Your task to perform on an android device: Go to privacy settings Image 0: 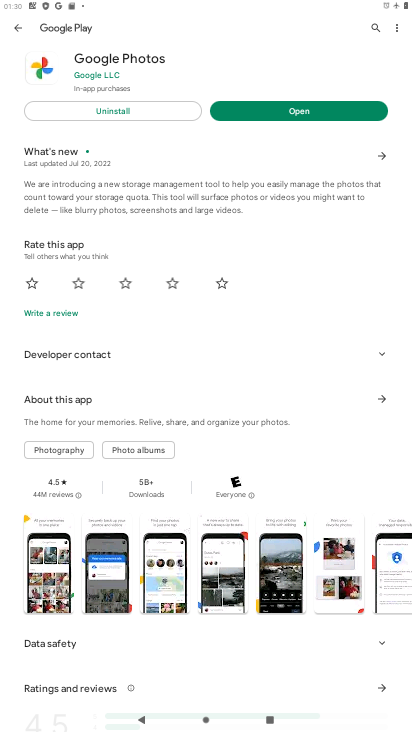
Step 0: press home button
Your task to perform on an android device: Go to privacy settings Image 1: 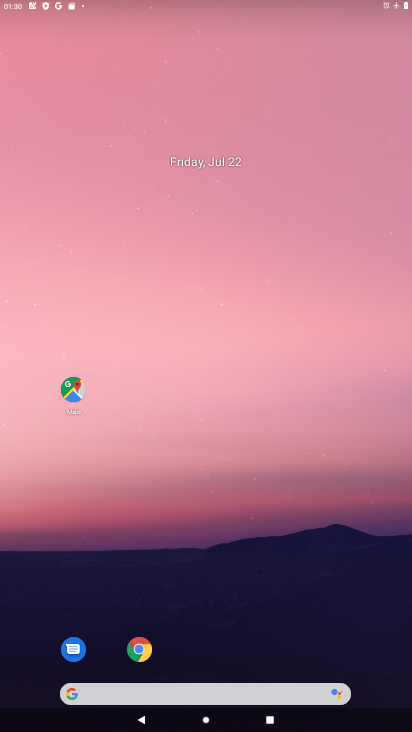
Step 1: drag from (333, 590) to (312, 122)
Your task to perform on an android device: Go to privacy settings Image 2: 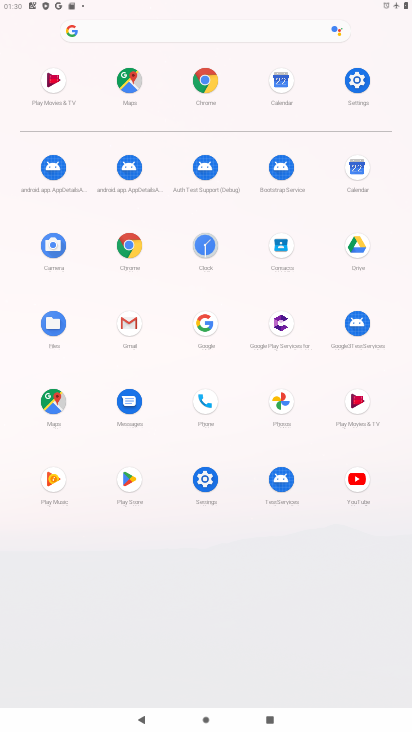
Step 2: click (361, 84)
Your task to perform on an android device: Go to privacy settings Image 3: 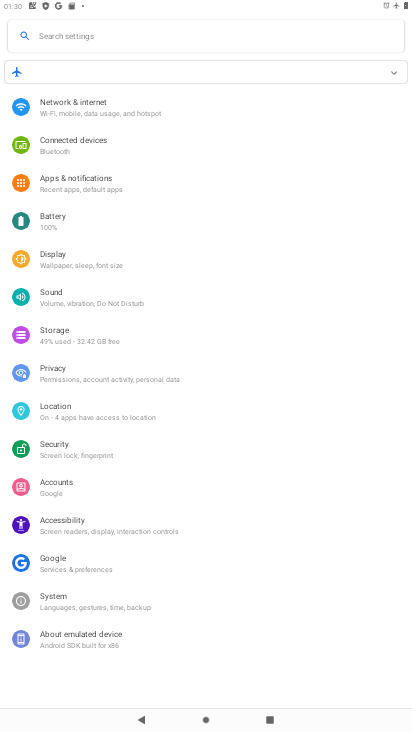
Step 3: click (68, 373)
Your task to perform on an android device: Go to privacy settings Image 4: 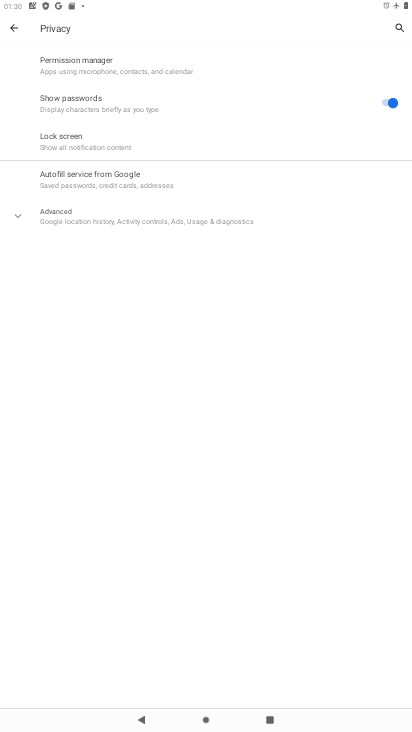
Step 4: task complete